Your task to perform on an android device: Go to settings Image 0: 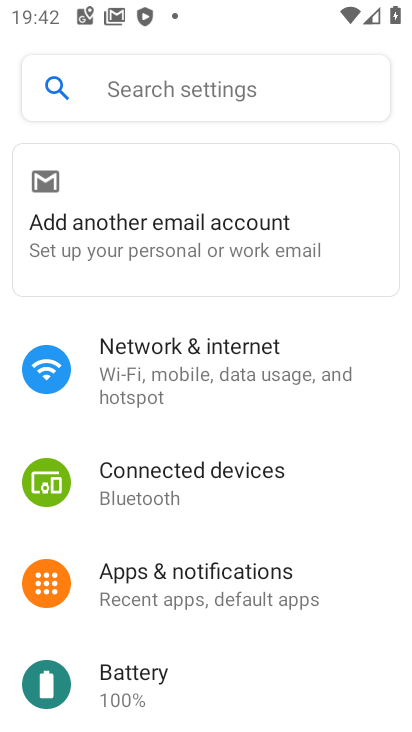
Step 0: drag from (355, 637) to (345, 216)
Your task to perform on an android device: Go to settings Image 1: 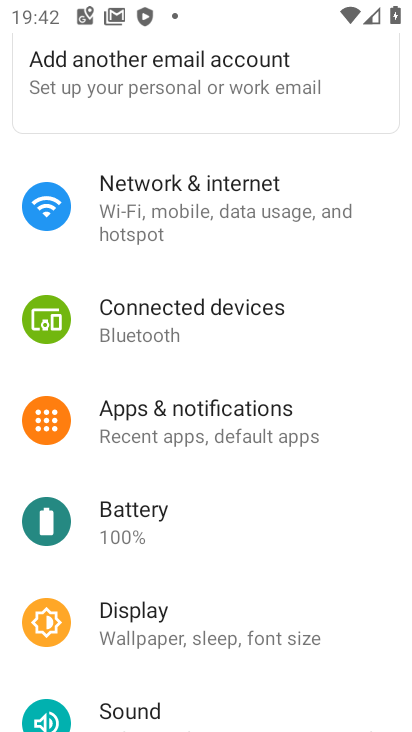
Step 1: task complete